Your task to perform on an android device: see sites visited before in the chrome app Image 0: 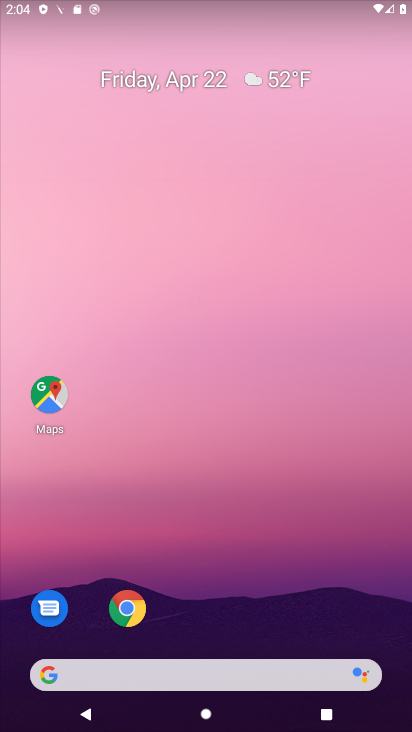
Step 0: click (133, 608)
Your task to perform on an android device: see sites visited before in the chrome app Image 1: 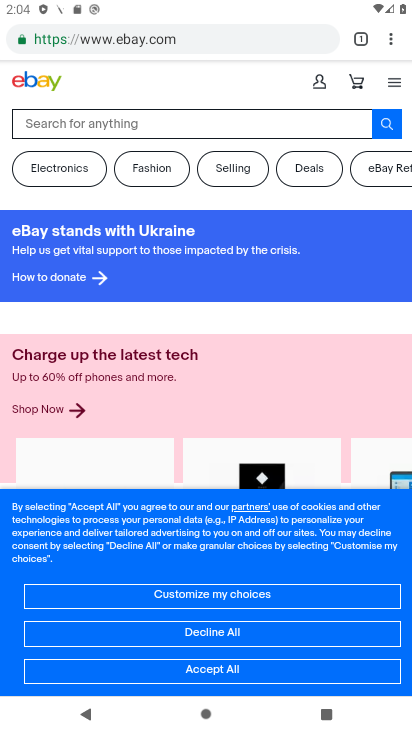
Step 1: click (392, 35)
Your task to perform on an android device: see sites visited before in the chrome app Image 2: 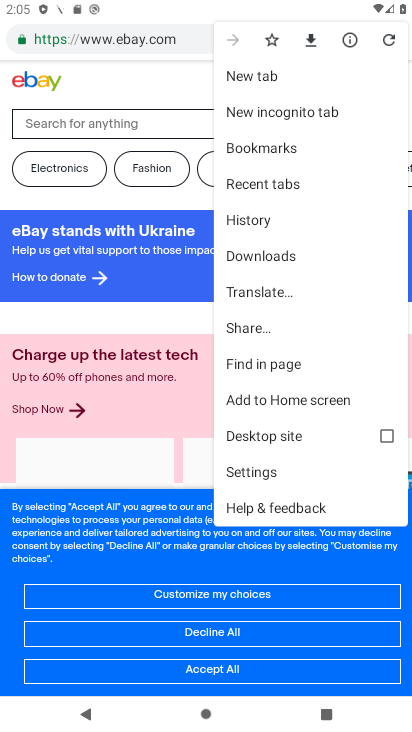
Step 2: click (256, 225)
Your task to perform on an android device: see sites visited before in the chrome app Image 3: 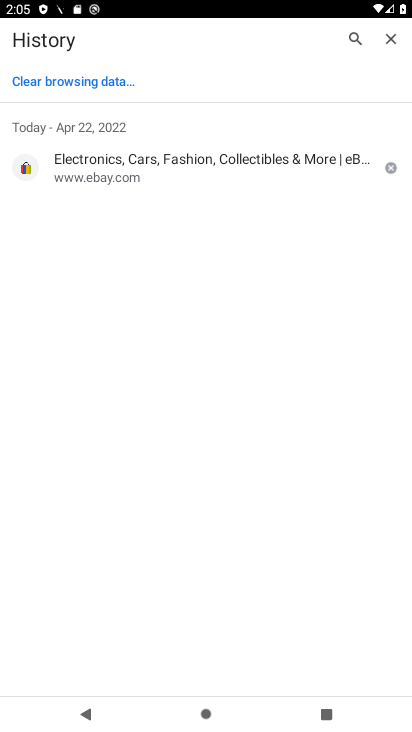
Step 3: task complete